Your task to perform on an android device: all mails in gmail Image 0: 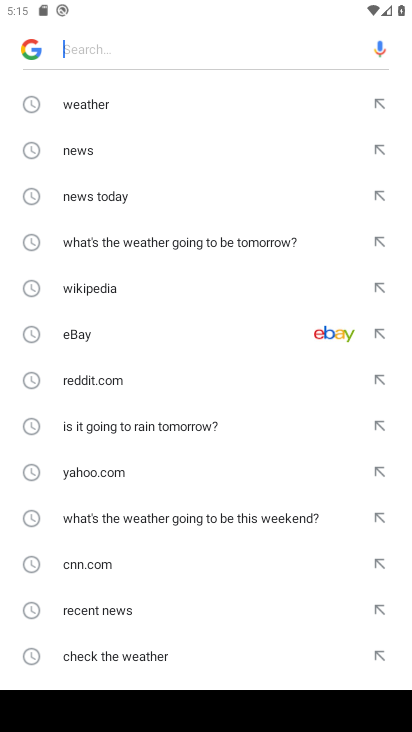
Step 0: press home button
Your task to perform on an android device: all mails in gmail Image 1: 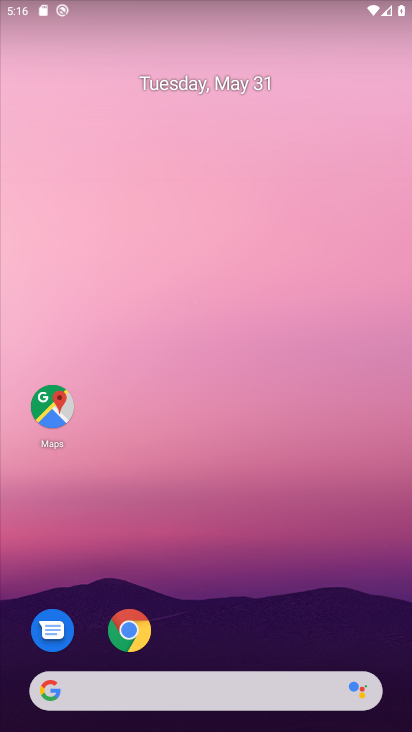
Step 1: drag from (216, 611) to (213, 208)
Your task to perform on an android device: all mails in gmail Image 2: 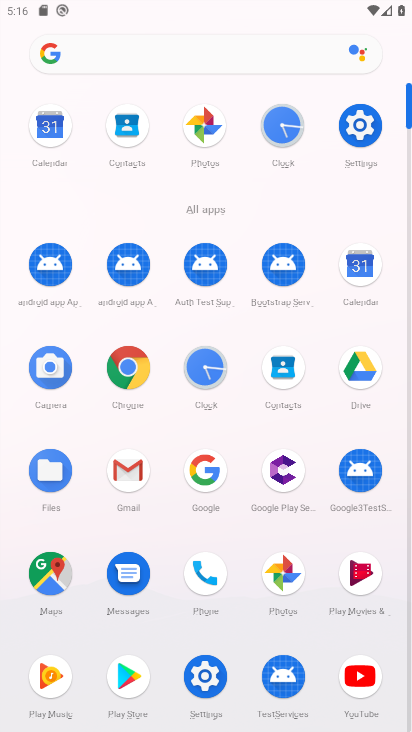
Step 2: click (131, 467)
Your task to perform on an android device: all mails in gmail Image 3: 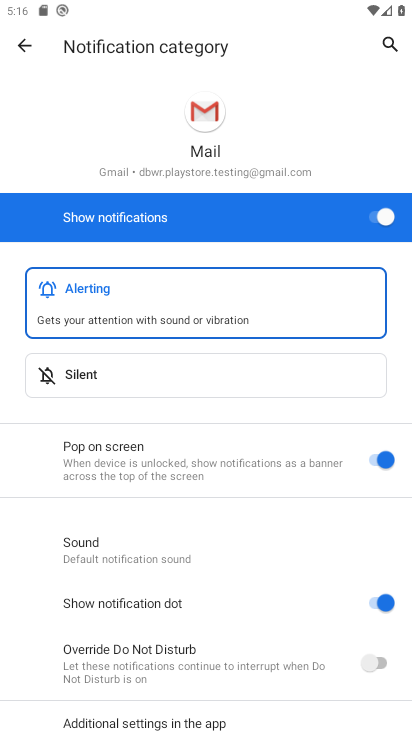
Step 3: press back button
Your task to perform on an android device: all mails in gmail Image 4: 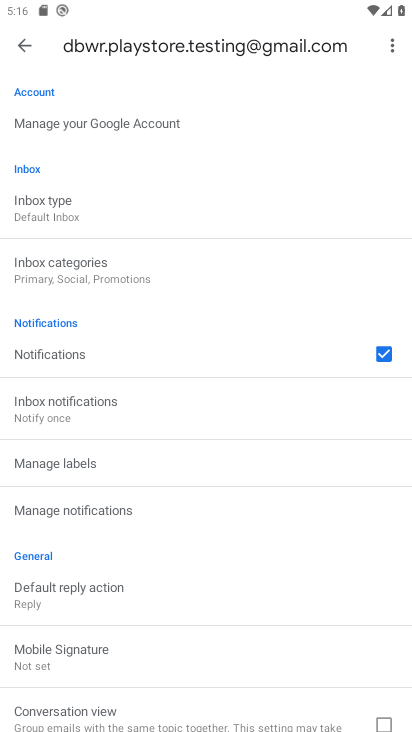
Step 4: press back button
Your task to perform on an android device: all mails in gmail Image 5: 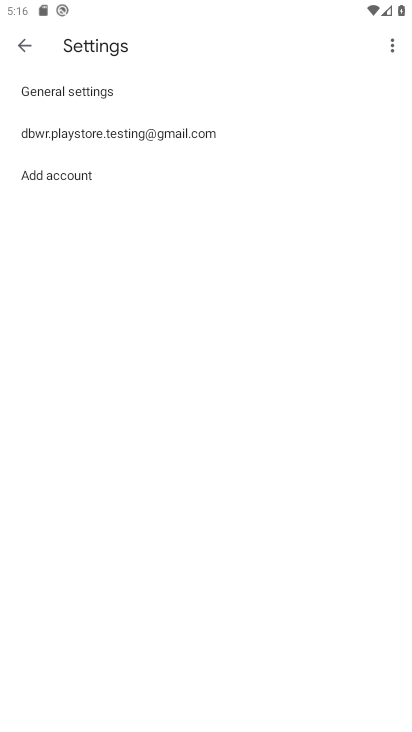
Step 5: press back button
Your task to perform on an android device: all mails in gmail Image 6: 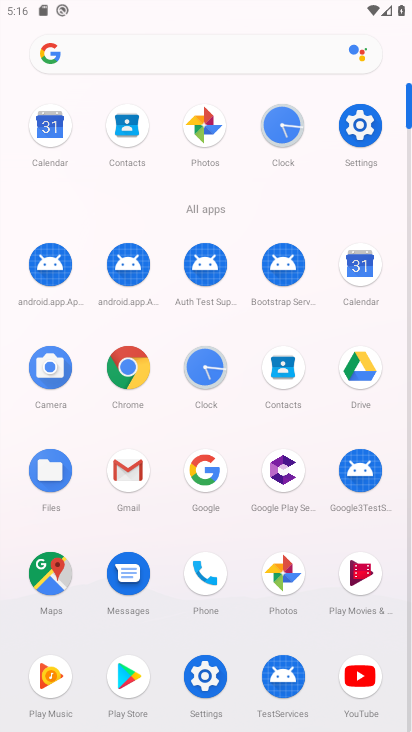
Step 6: click (130, 466)
Your task to perform on an android device: all mails in gmail Image 7: 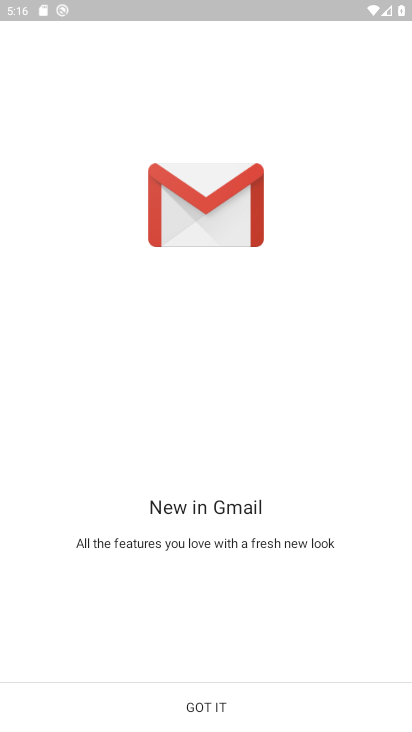
Step 7: click (212, 698)
Your task to perform on an android device: all mails in gmail Image 8: 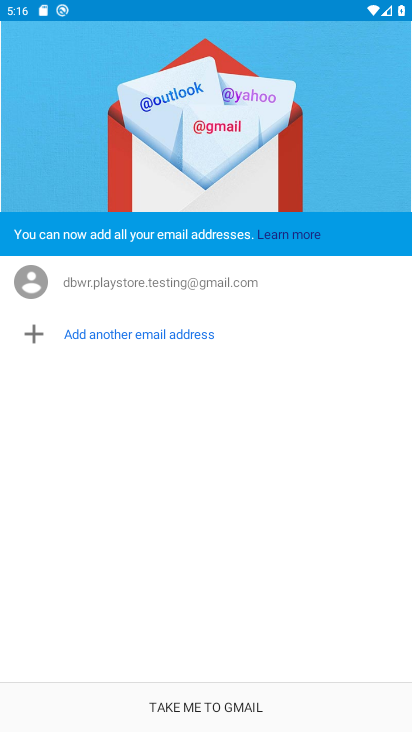
Step 8: click (219, 696)
Your task to perform on an android device: all mails in gmail Image 9: 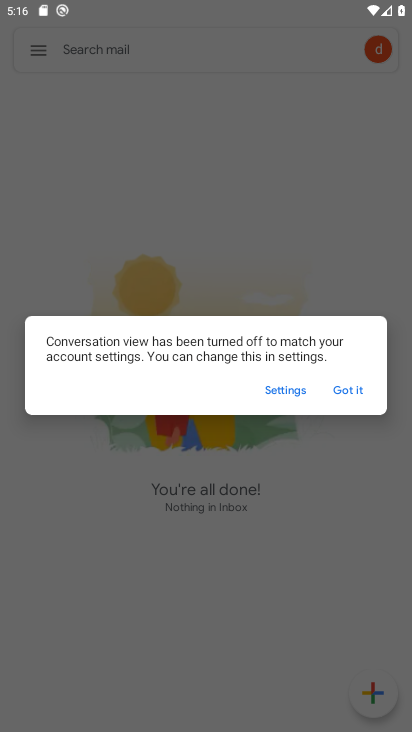
Step 9: click (346, 398)
Your task to perform on an android device: all mails in gmail Image 10: 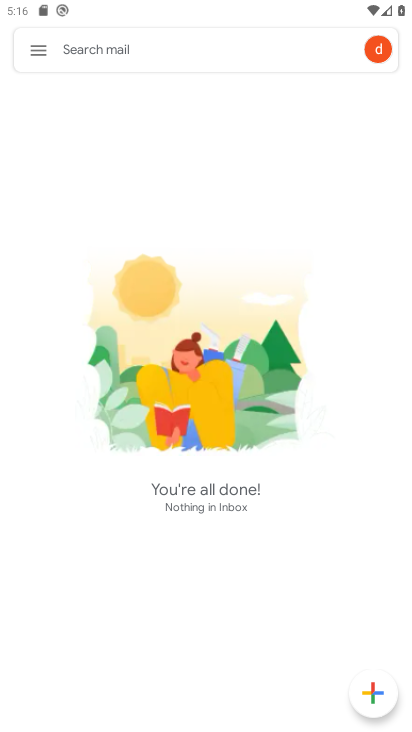
Step 10: click (44, 49)
Your task to perform on an android device: all mails in gmail Image 11: 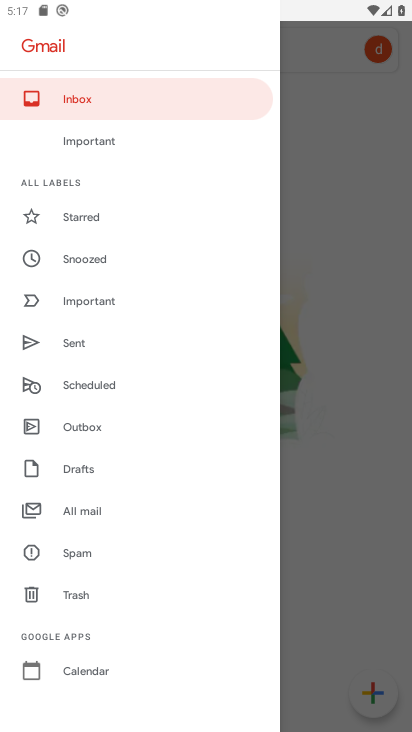
Step 11: click (110, 509)
Your task to perform on an android device: all mails in gmail Image 12: 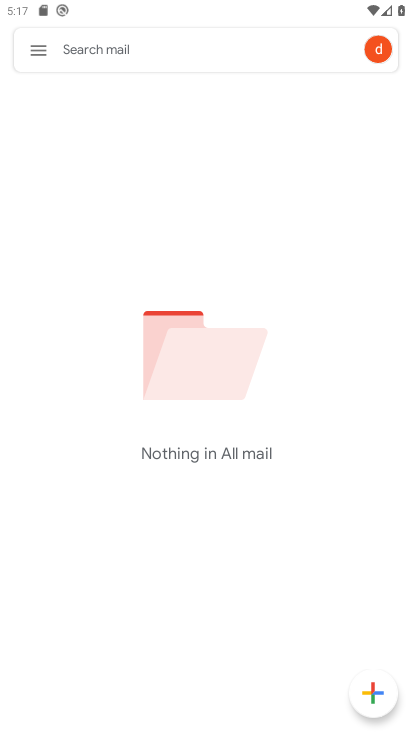
Step 12: task complete